Your task to perform on an android device: turn off translation in the chrome app Image 0: 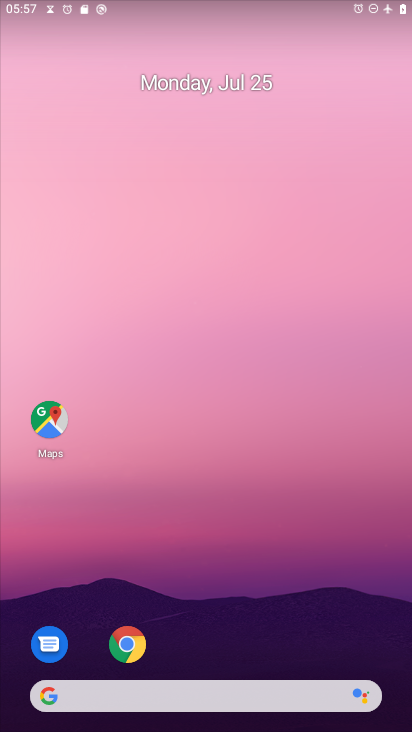
Step 0: press home button
Your task to perform on an android device: turn off translation in the chrome app Image 1: 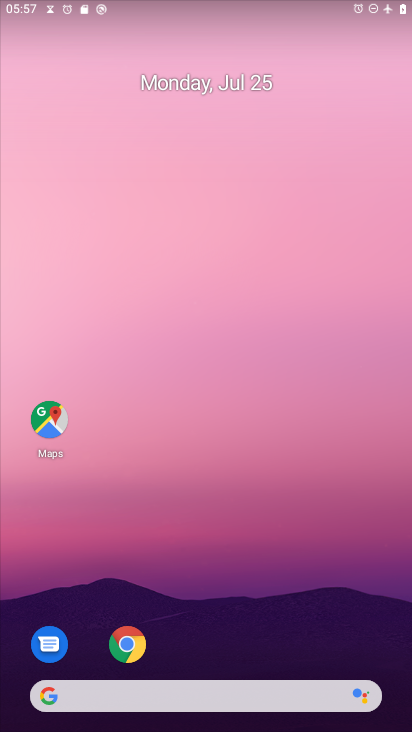
Step 1: drag from (211, 619) to (179, 59)
Your task to perform on an android device: turn off translation in the chrome app Image 2: 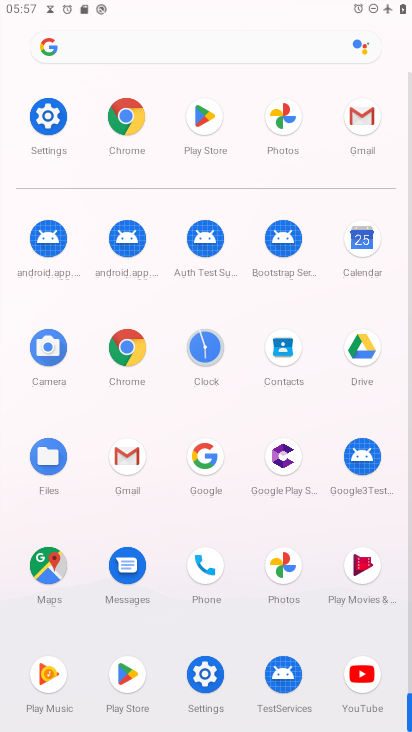
Step 2: click (123, 118)
Your task to perform on an android device: turn off translation in the chrome app Image 3: 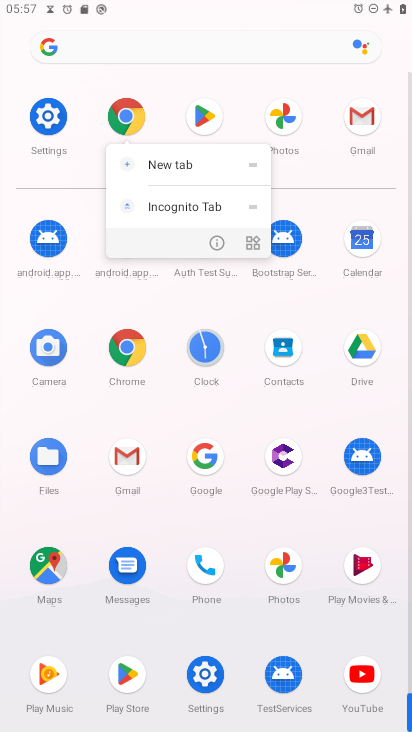
Step 3: click (123, 120)
Your task to perform on an android device: turn off translation in the chrome app Image 4: 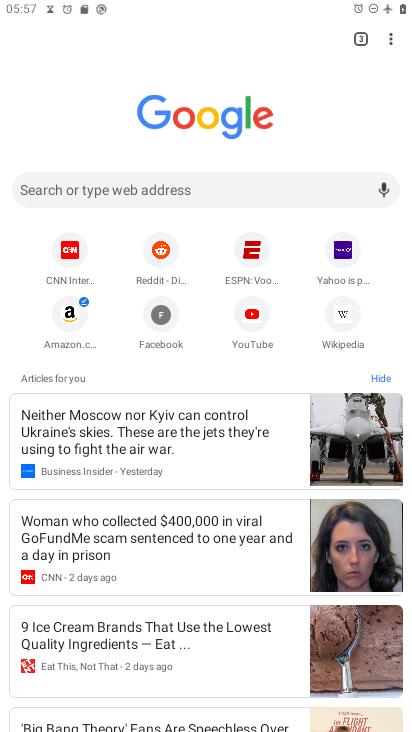
Step 4: drag from (391, 45) to (252, 333)
Your task to perform on an android device: turn off translation in the chrome app Image 5: 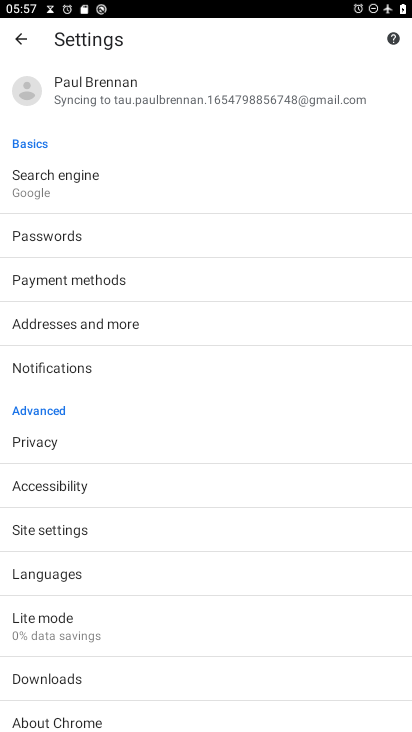
Step 5: click (57, 578)
Your task to perform on an android device: turn off translation in the chrome app Image 6: 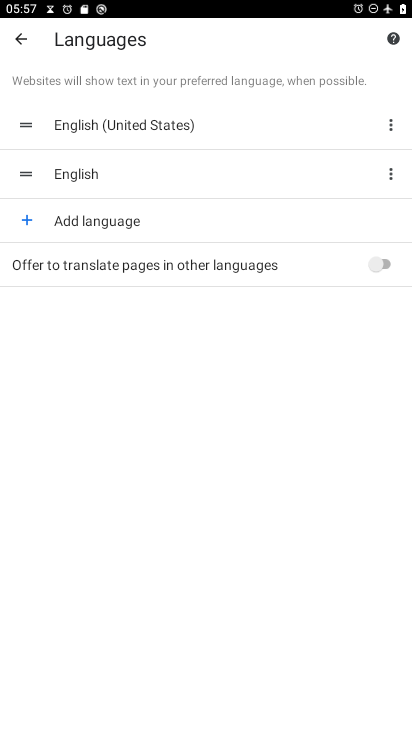
Step 6: task complete